Your task to perform on an android device: Open notification settings Image 0: 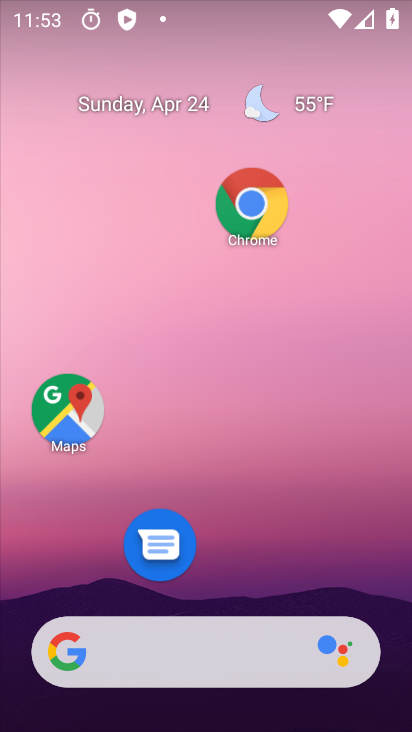
Step 0: drag from (315, 689) to (304, 178)
Your task to perform on an android device: Open notification settings Image 1: 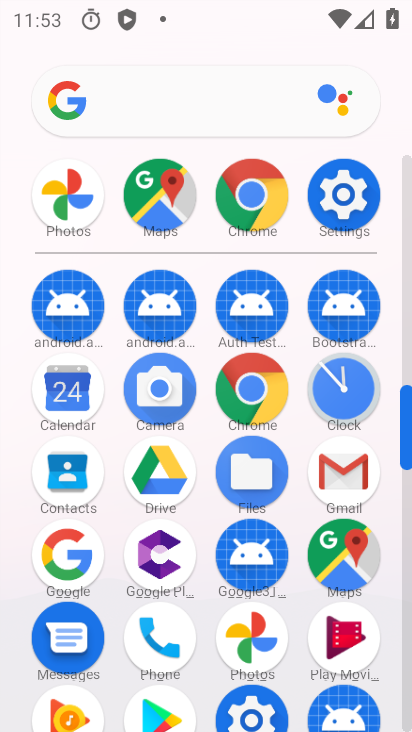
Step 1: click (331, 211)
Your task to perform on an android device: Open notification settings Image 2: 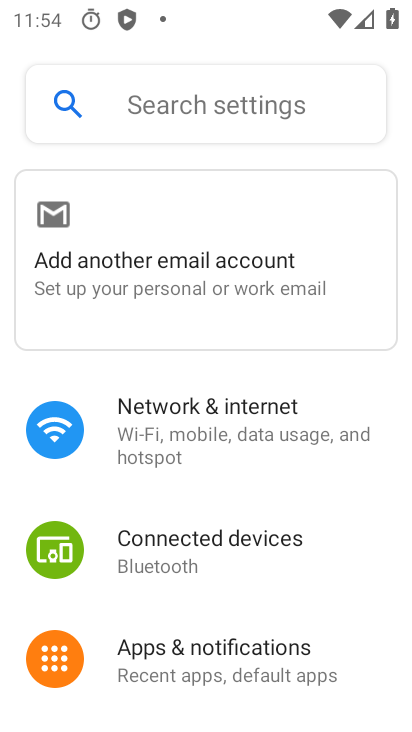
Step 2: click (230, 110)
Your task to perform on an android device: Open notification settings Image 3: 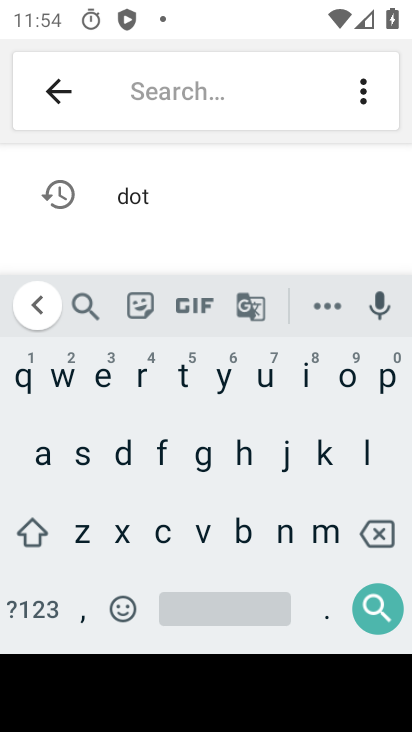
Step 3: click (278, 540)
Your task to perform on an android device: Open notification settings Image 4: 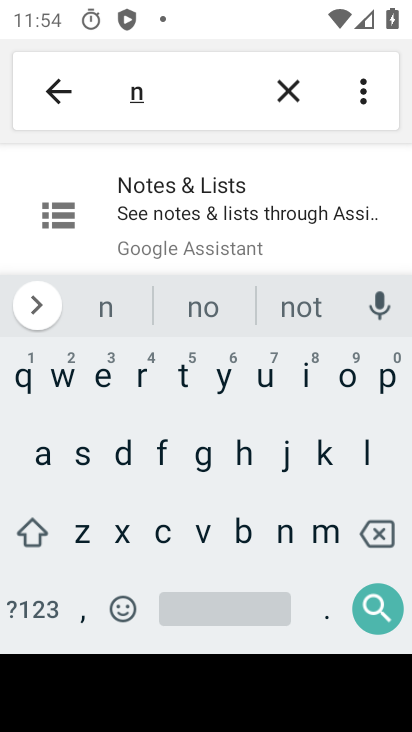
Step 4: click (349, 388)
Your task to perform on an android device: Open notification settings Image 5: 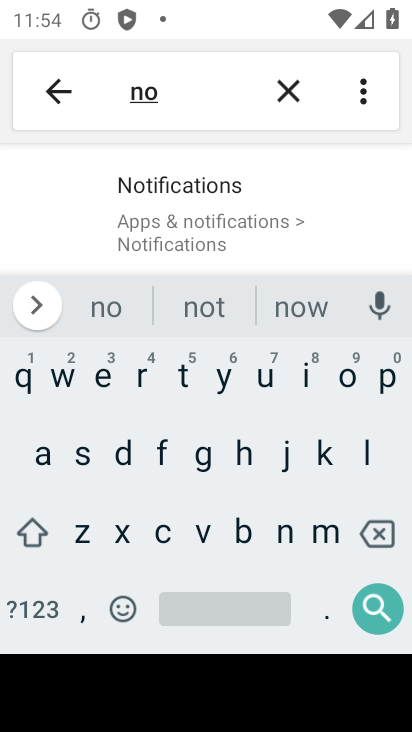
Step 5: click (179, 382)
Your task to perform on an android device: Open notification settings Image 6: 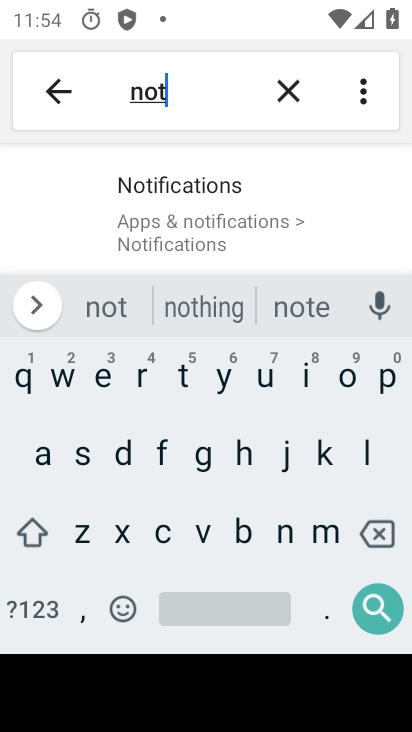
Step 6: click (172, 222)
Your task to perform on an android device: Open notification settings Image 7: 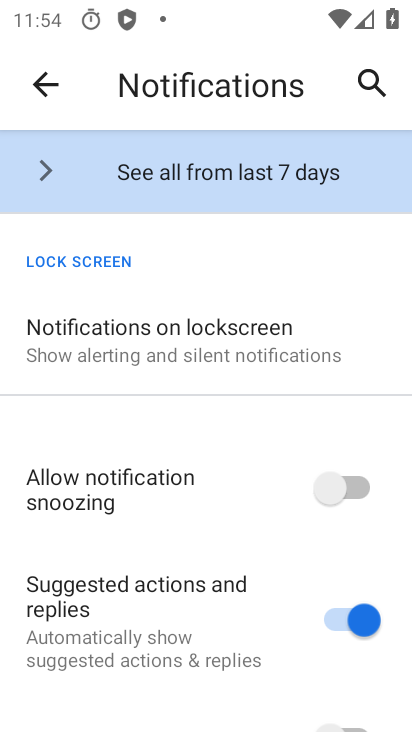
Step 7: click (157, 348)
Your task to perform on an android device: Open notification settings Image 8: 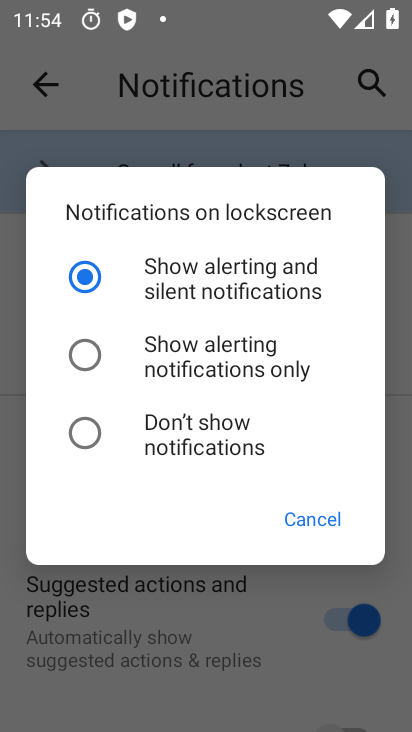
Step 8: task complete